Your task to perform on an android device: find photos in the google photos app Image 0: 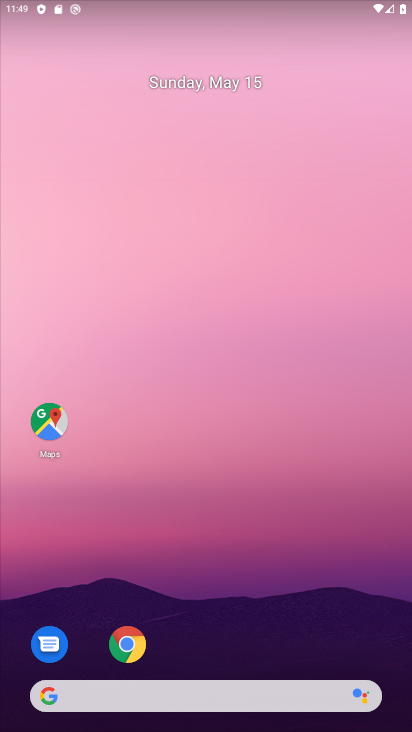
Step 0: drag from (221, 652) to (322, 60)
Your task to perform on an android device: find photos in the google photos app Image 1: 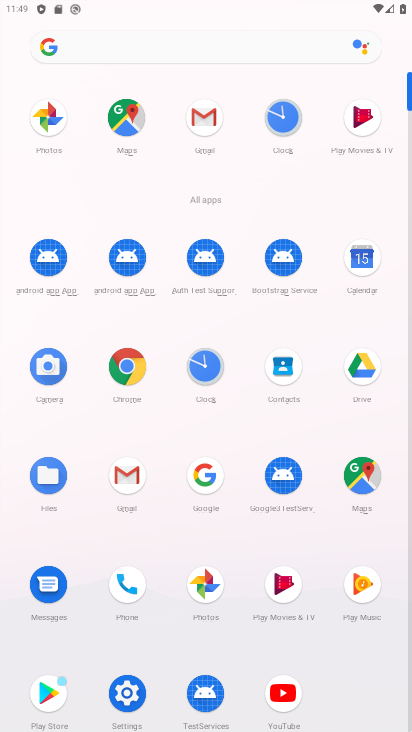
Step 1: click (205, 582)
Your task to perform on an android device: find photos in the google photos app Image 2: 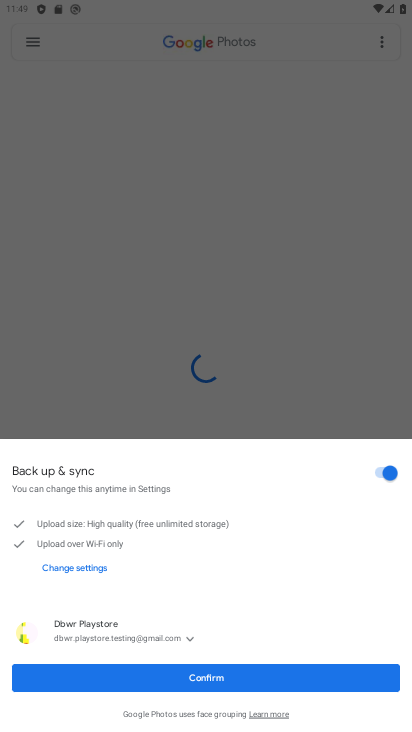
Step 2: click (255, 673)
Your task to perform on an android device: find photos in the google photos app Image 3: 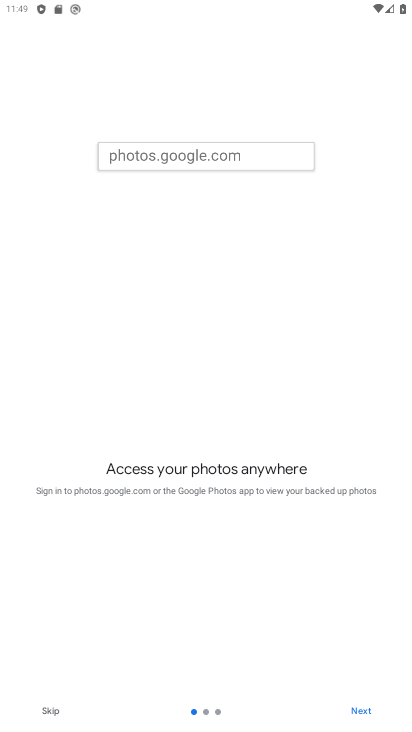
Step 3: click (38, 704)
Your task to perform on an android device: find photos in the google photos app Image 4: 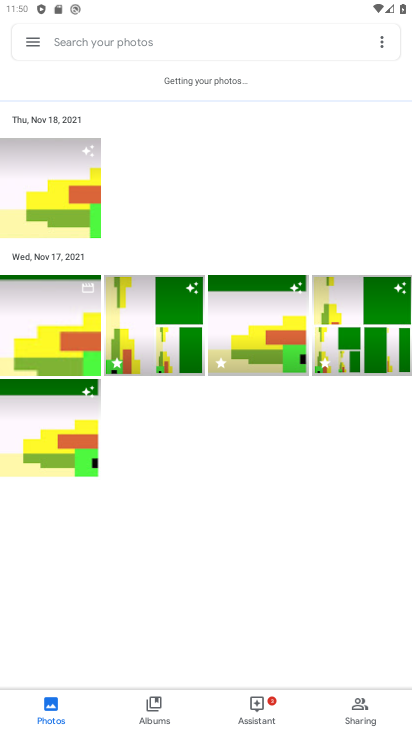
Step 4: click (61, 194)
Your task to perform on an android device: find photos in the google photos app Image 5: 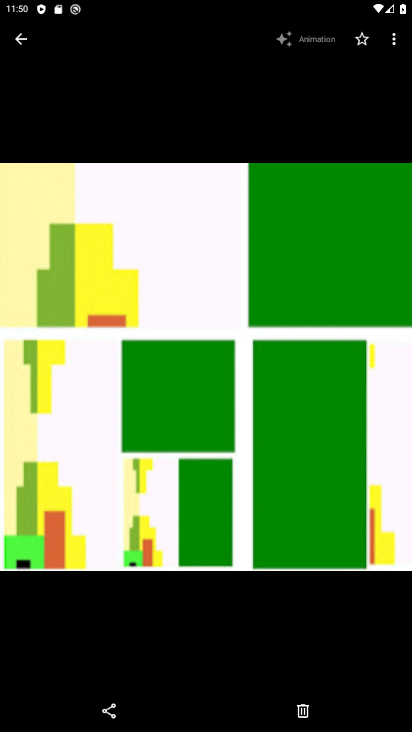
Step 5: task complete